Your task to perform on an android device: Go to accessibility settings Image 0: 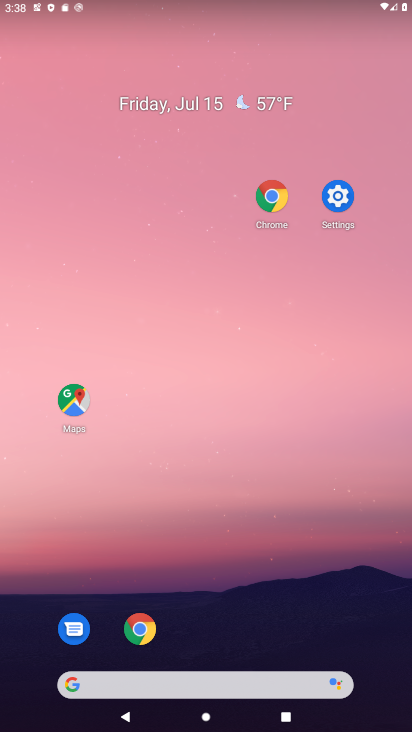
Step 0: click (204, 223)
Your task to perform on an android device: Go to accessibility settings Image 1: 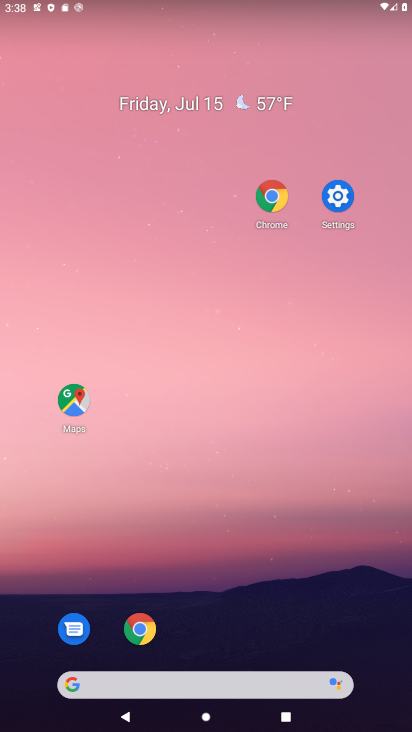
Step 1: drag from (243, 538) to (186, 322)
Your task to perform on an android device: Go to accessibility settings Image 2: 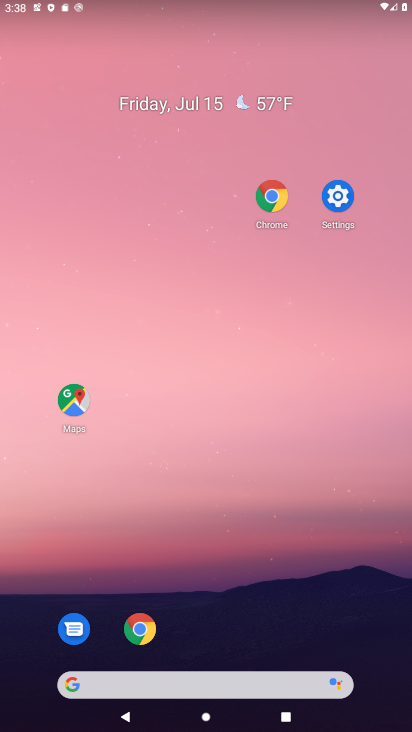
Step 2: drag from (158, 539) to (127, 261)
Your task to perform on an android device: Go to accessibility settings Image 3: 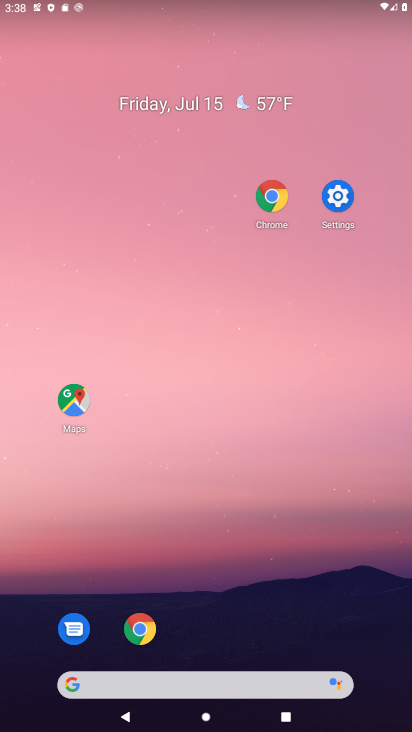
Step 3: drag from (307, 492) to (240, 78)
Your task to perform on an android device: Go to accessibility settings Image 4: 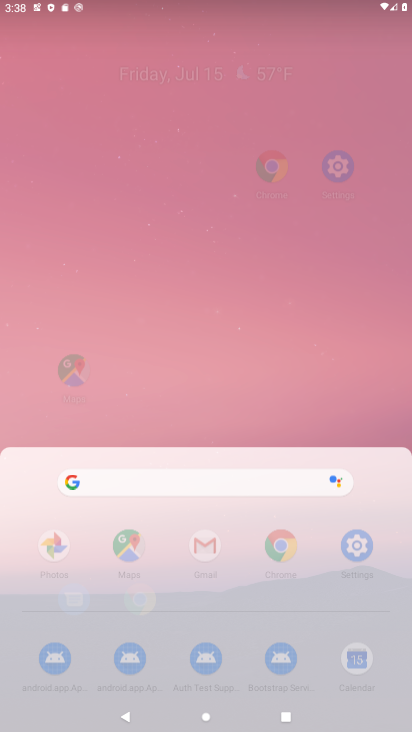
Step 4: drag from (251, 606) to (244, 283)
Your task to perform on an android device: Go to accessibility settings Image 5: 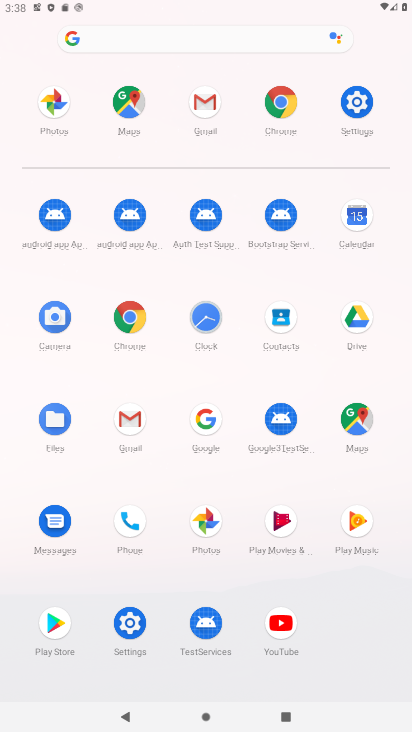
Step 5: click (342, 100)
Your task to perform on an android device: Go to accessibility settings Image 6: 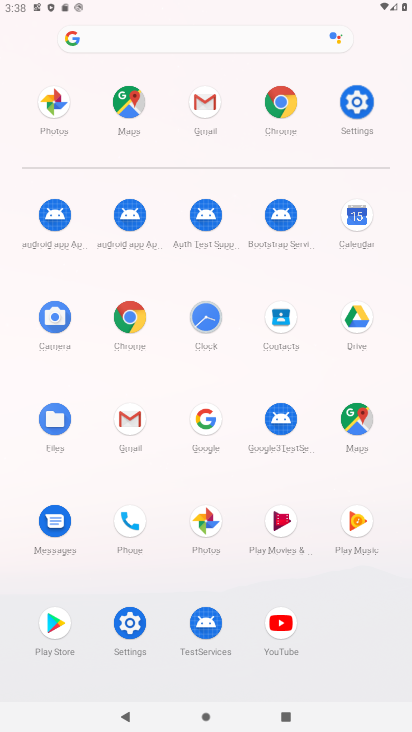
Step 6: click (342, 100)
Your task to perform on an android device: Go to accessibility settings Image 7: 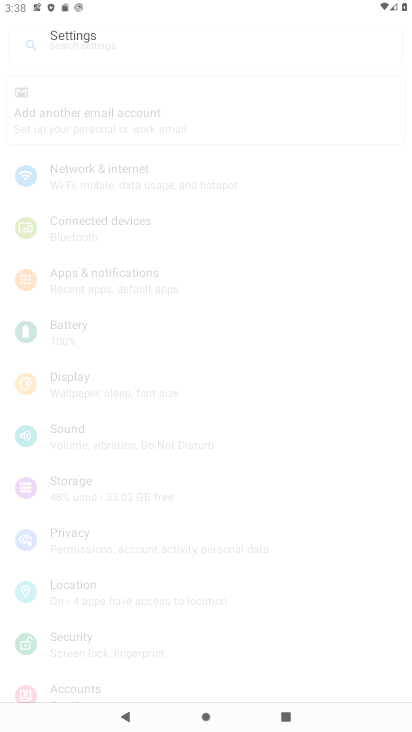
Step 7: click (353, 115)
Your task to perform on an android device: Go to accessibility settings Image 8: 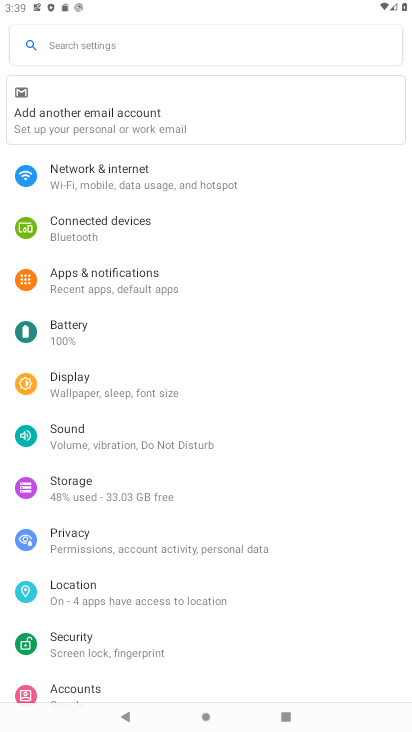
Step 8: drag from (90, 599) to (87, 286)
Your task to perform on an android device: Go to accessibility settings Image 9: 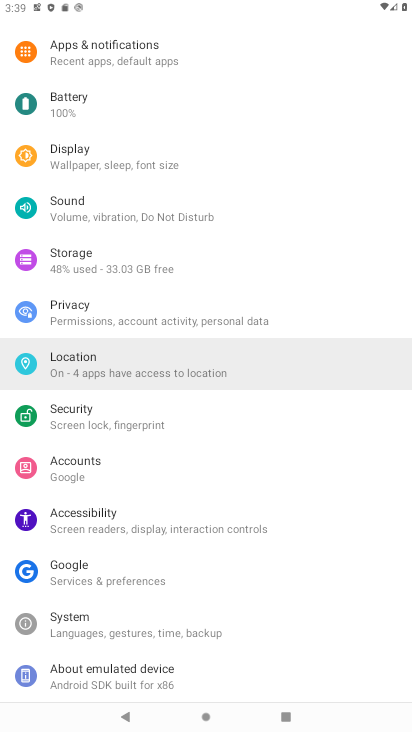
Step 9: drag from (98, 503) to (133, 234)
Your task to perform on an android device: Go to accessibility settings Image 10: 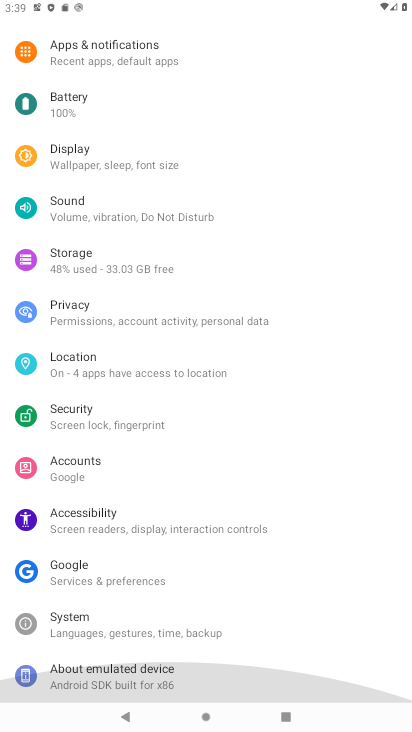
Step 10: drag from (164, 416) to (164, 323)
Your task to perform on an android device: Go to accessibility settings Image 11: 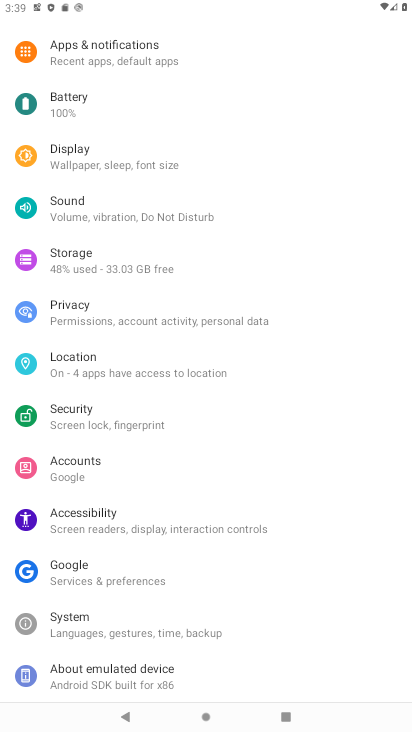
Step 11: click (90, 516)
Your task to perform on an android device: Go to accessibility settings Image 12: 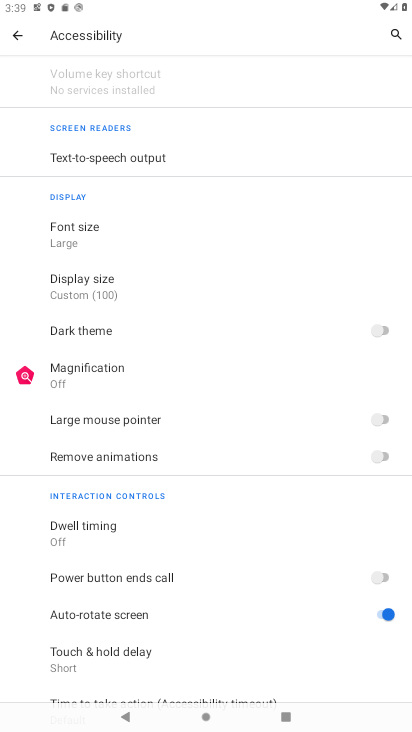
Step 12: task complete